Your task to perform on an android device: open app "Paramount+ | Peak Streaming" Image 0: 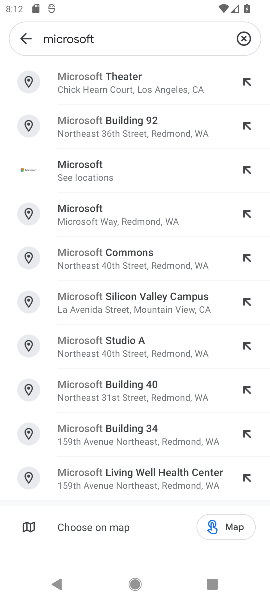
Step 0: press home button
Your task to perform on an android device: open app "Paramount+ | Peak Streaming" Image 1: 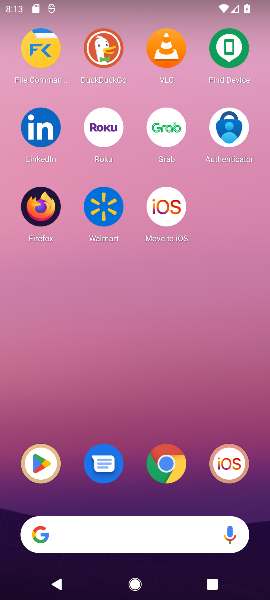
Step 1: click (41, 456)
Your task to perform on an android device: open app "Paramount+ | Peak Streaming" Image 2: 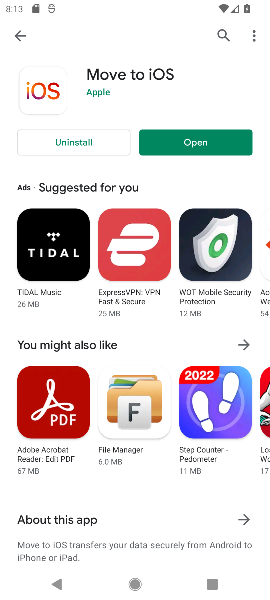
Step 2: click (208, 48)
Your task to perform on an android device: open app "Paramount+ | Peak Streaming" Image 3: 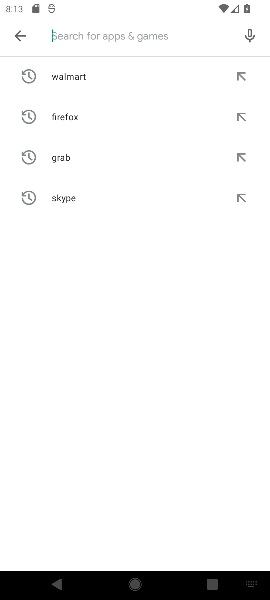
Step 3: click (208, 43)
Your task to perform on an android device: open app "Paramount+ | Peak Streaming" Image 4: 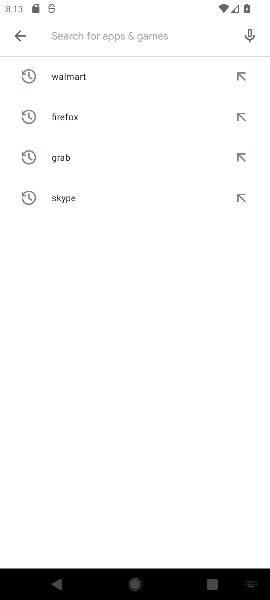
Step 4: type "paramount"
Your task to perform on an android device: open app "Paramount+ | Peak Streaming" Image 5: 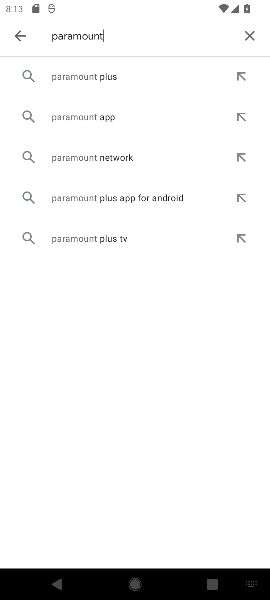
Step 5: click (107, 60)
Your task to perform on an android device: open app "Paramount+ | Peak Streaming" Image 6: 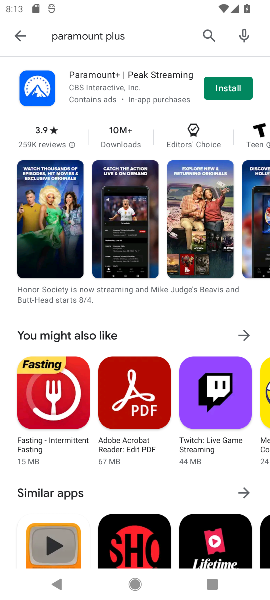
Step 6: click (222, 91)
Your task to perform on an android device: open app "Paramount+ | Peak Streaming" Image 7: 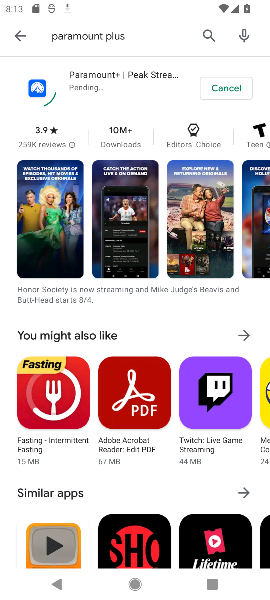
Step 7: task complete